Your task to perform on an android device: Toggle the flashlight Image 0: 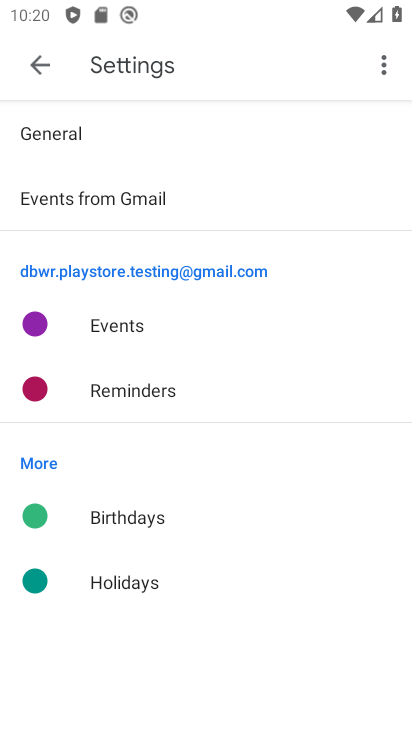
Step 0: press home button
Your task to perform on an android device: Toggle the flashlight Image 1: 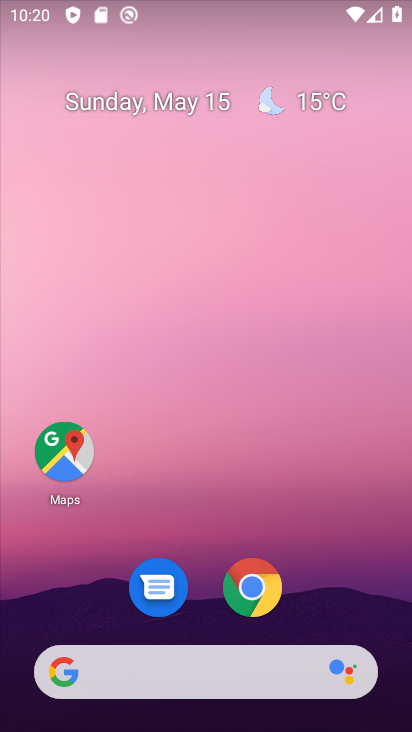
Step 1: task complete